Your task to perform on an android device: Open location settings Image 0: 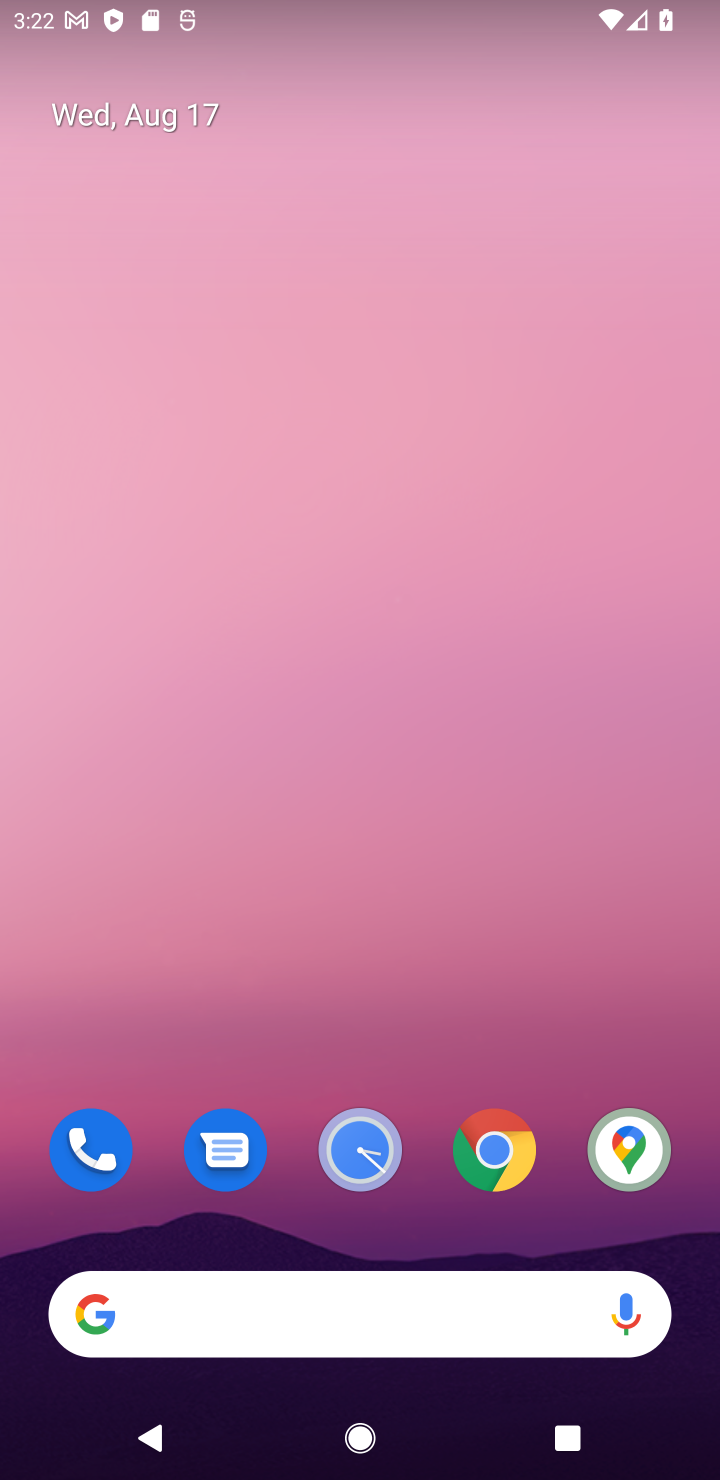
Step 0: drag from (461, 1098) to (220, 65)
Your task to perform on an android device: Open location settings Image 1: 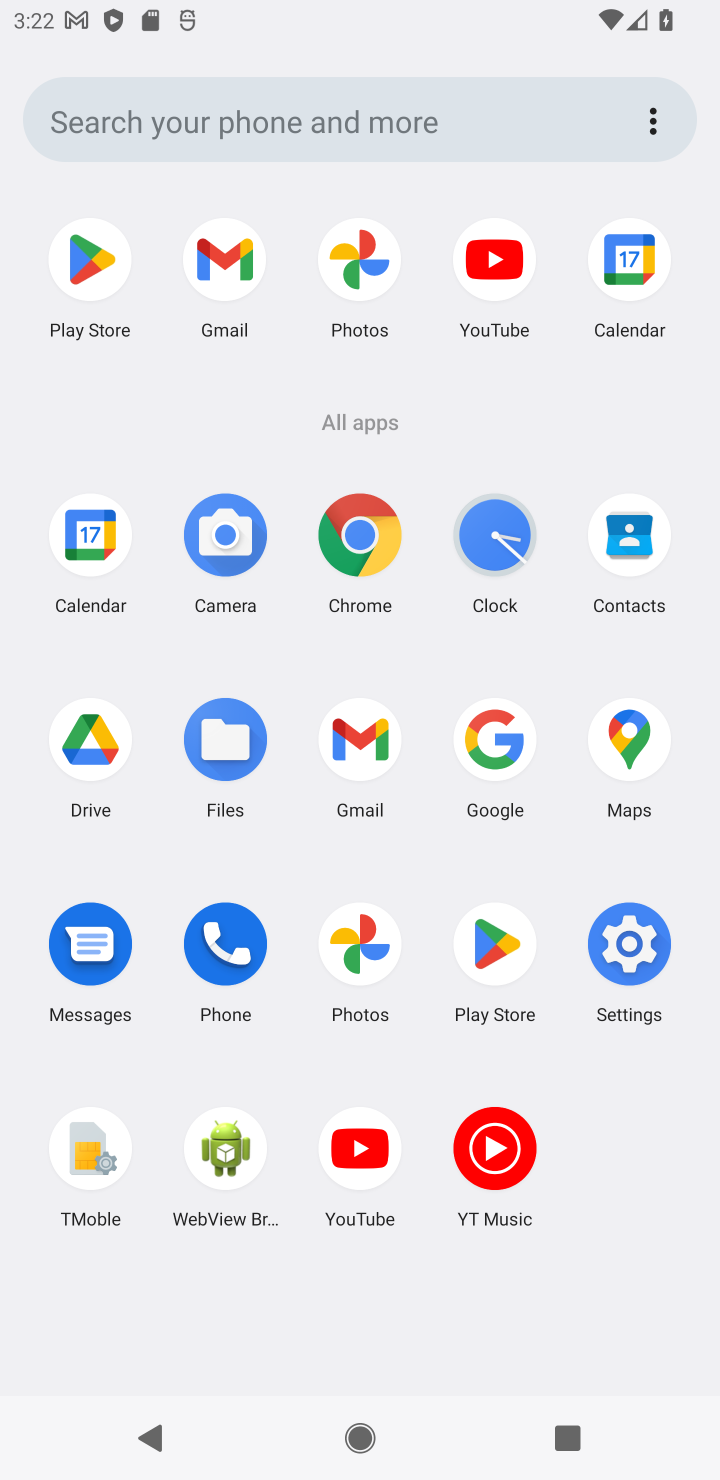
Step 1: click (627, 965)
Your task to perform on an android device: Open location settings Image 2: 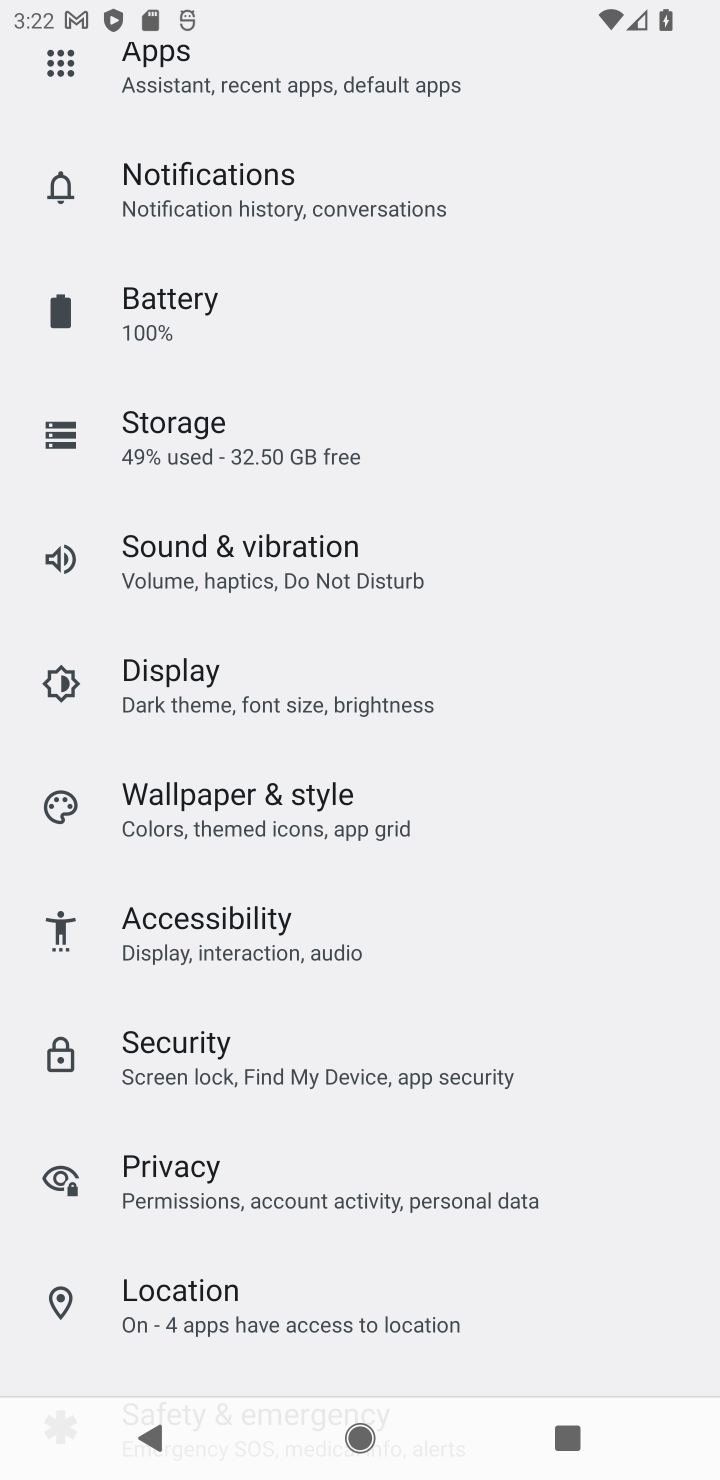
Step 2: click (237, 1311)
Your task to perform on an android device: Open location settings Image 3: 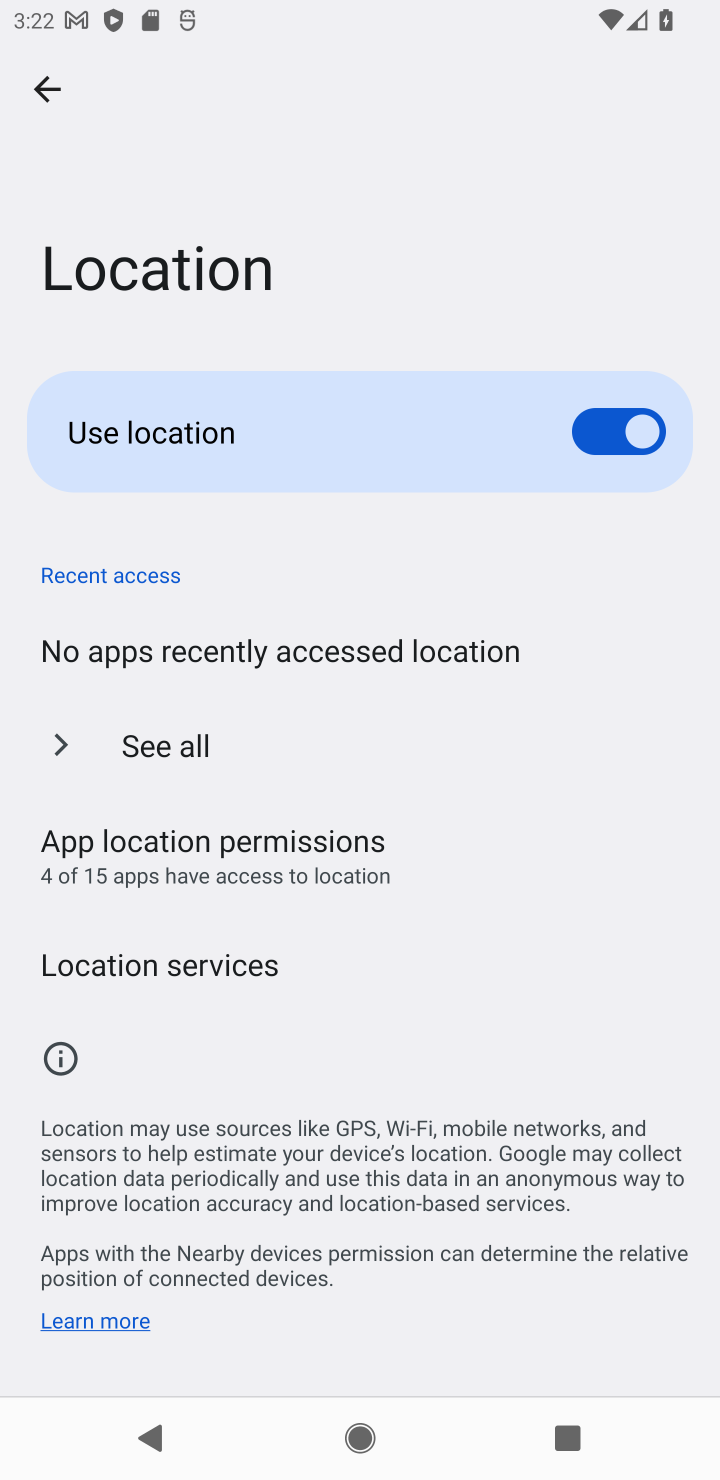
Step 3: task complete